Your task to perform on an android device: turn off javascript in the chrome app Image 0: 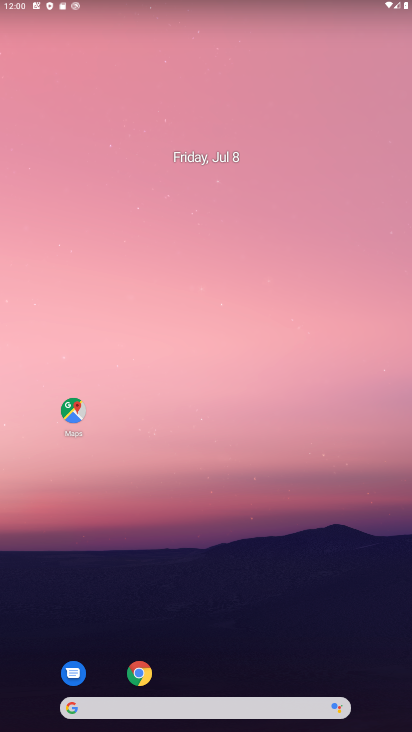
Step 0: click (138, 673)
Your task to perform on an android device: turn off javascript in the chrome app Image 1: 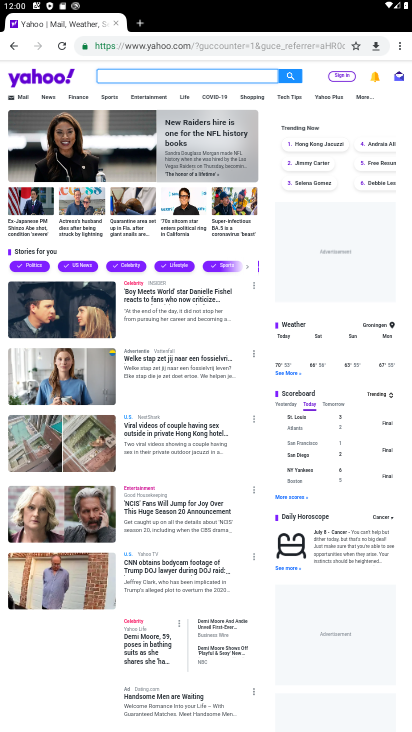
Step 1: click (399, 47)
Your task to perform on an android device: turn off javascript in the chrome app Image 2: 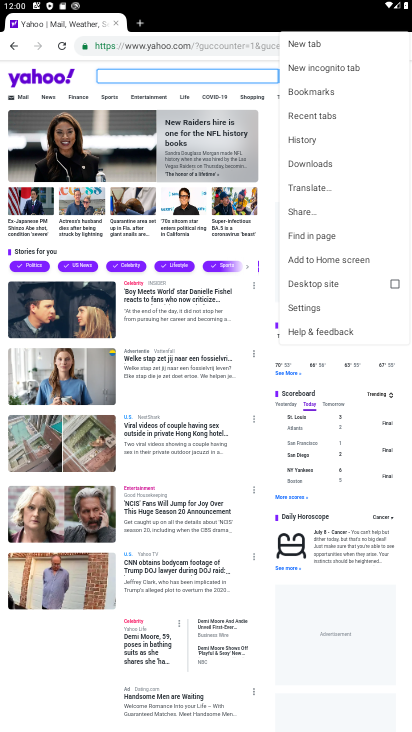
Step 2: click (310, 306)
Your task to perform on an android device: turn off javascript in the chrome app Image 3: 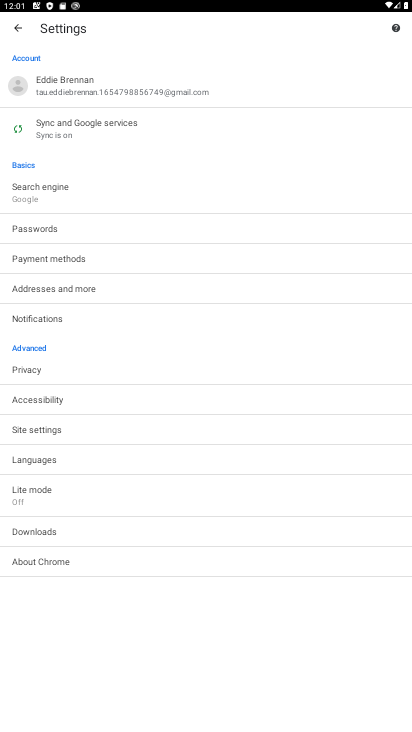
Step 3: click (45, 428)
Your task to perform on an android device: turn off javascript in the chrome app Image 4: 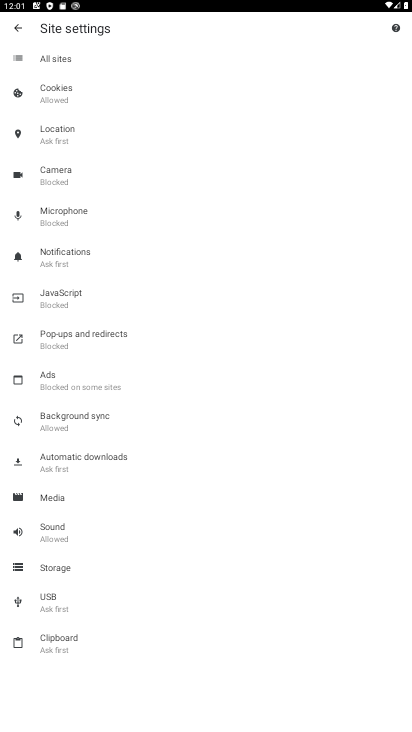
Step 4: click (58, 302)
Your task to perform on an android device: turn off javascript in the chrome app Image 5: 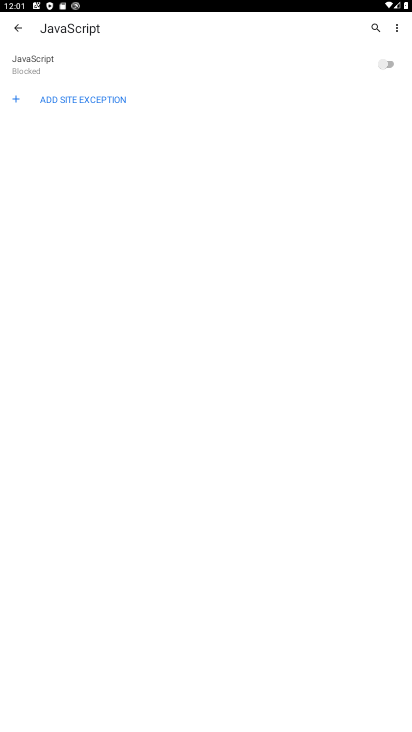
Step 5: task complete